Your task to perform on an android device: Search for the best vacuum on Amazon. Image 0: 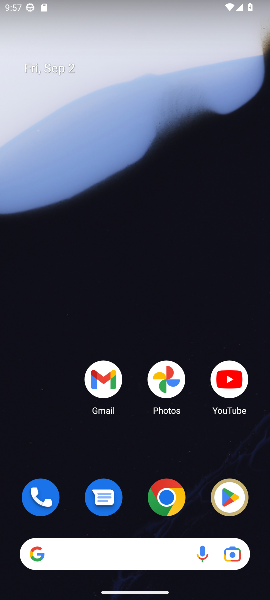
Step 0: drag from (123, 512) to (117, 183)
Your task to perform on an android device: Search for the best vacuum on Amazon. Image 1: 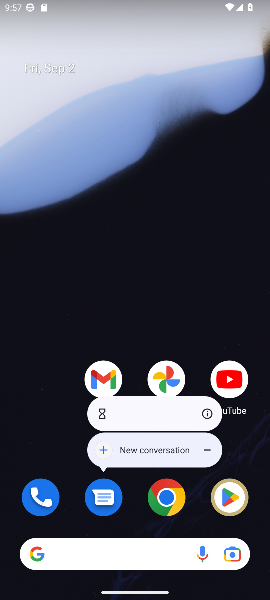
Step 1: click (131, 518)
Your task to perform on an android device: Search for the best vacuum on Amazon. Image 2: 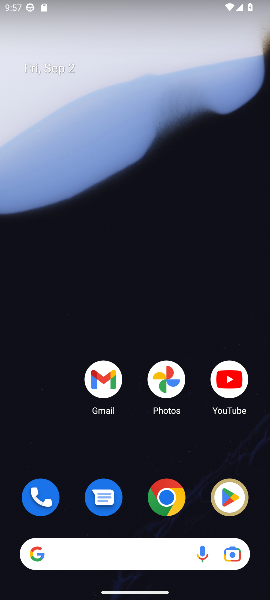
Step 2: drag from (129, 508) to (90, 75)
Your task to perform on an android device: Search for the best vacuum on Amazon. Image 3: 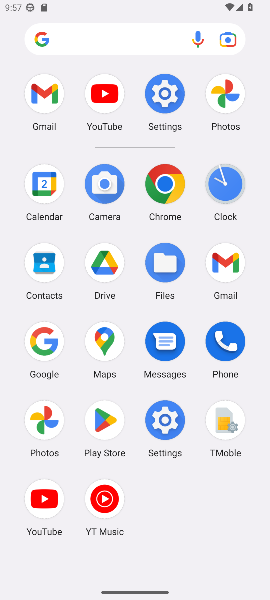
Step 3: click (37, 347)
Your task to perform on an android device: Search for the best vacuum on Amazon. Image 4: 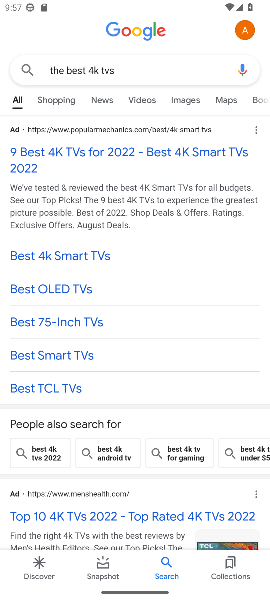
Step 4: click (143, 69)
Your task to perform on an android device: Search for the best vacuum on Amazon. Image 5: 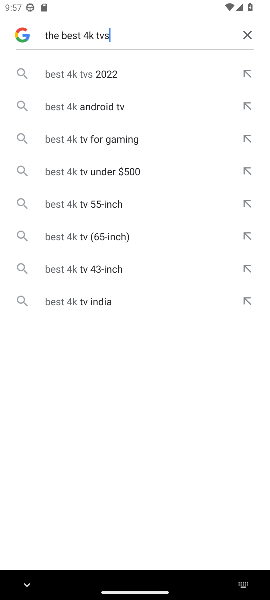
Step 5: click (143, 69)
Your task to perform on an android device: Search for the best vacuum on Amazon. Image 6: 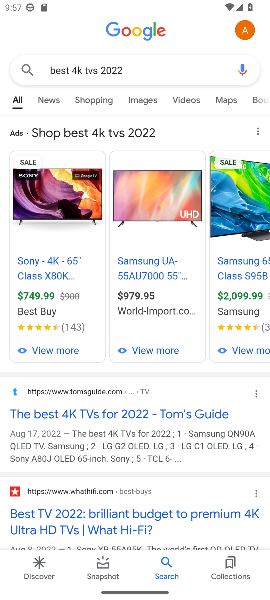
Step 6: click (249, 30)
Your task to perform on an android device: Search for the best vacuum on Amazon. Image 7: 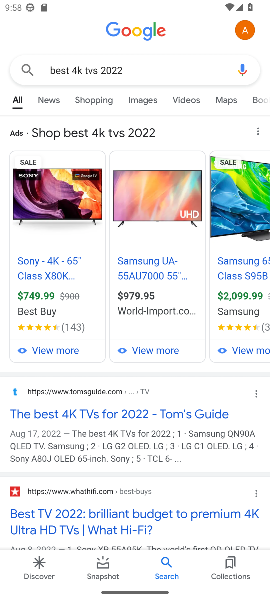
Step 7: click (148, 69)
Your task to perform on an android device: Search for the best vacuum on Amazon. Image 8: 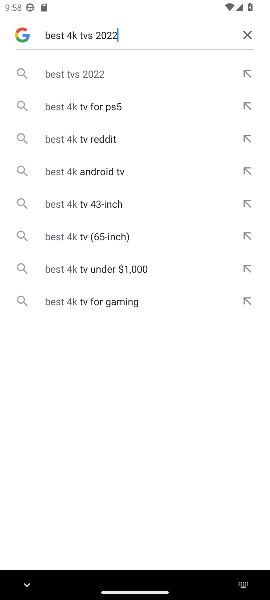
Step 8: click (247, 36)
Your task to perform on an android device: Search for the best vacuum on Amazon. Image 9: 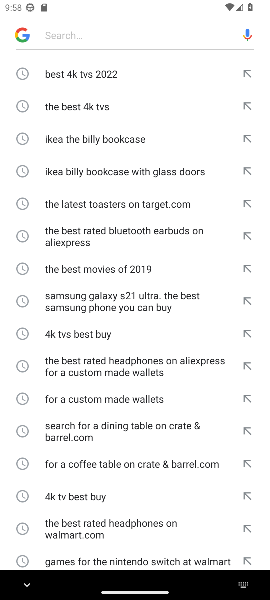
Step 9: click (83, 73)
Your task to perform on an android device: Search for the best vacuum on Amazon. Image 10: 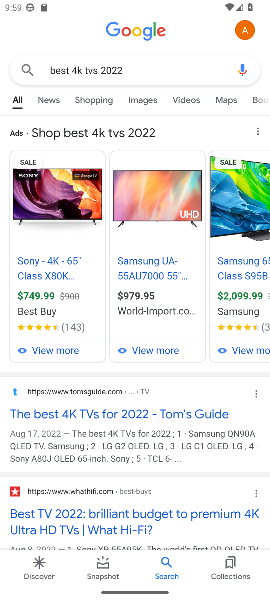
Step 10: task complete